Your task to perform on an android device: Set the phone to "Do not disturb". Image 0: 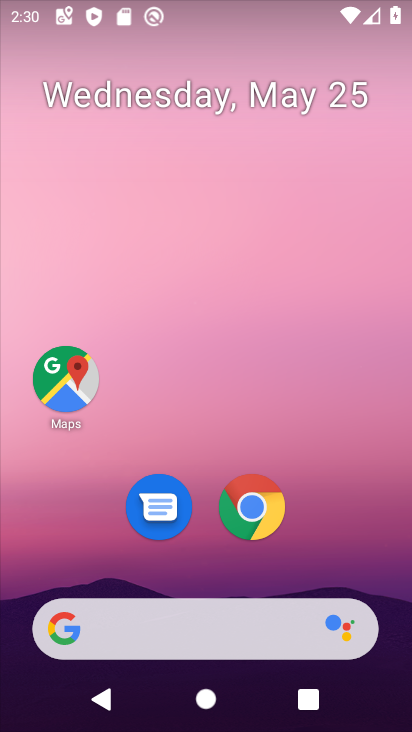
Step 0: drag from (196, 652) to (256, 135)
Your task to perform on an android device: Set the phone to "Do not disturb". Image 1: 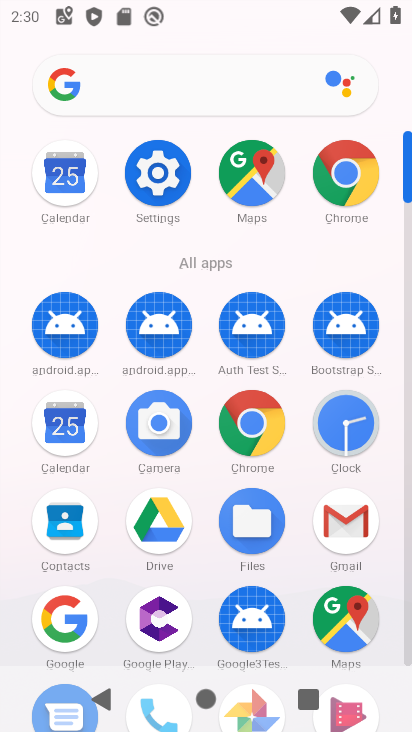
Step 1: drag from (172, 480) to (178, 247)
Your task to perform on an android device: Set the phone to "Do not disturb". Image 2: 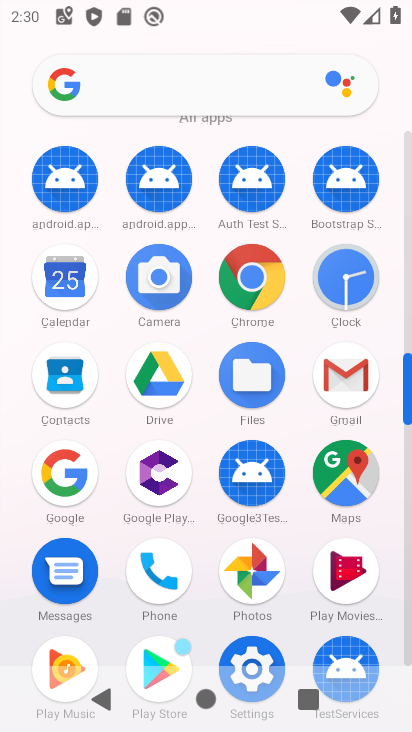
Step 2: drag from (214, 485) to (243, 239)
Your task to perform on an android device: Set the phone to "Do not disturb". Image 3: 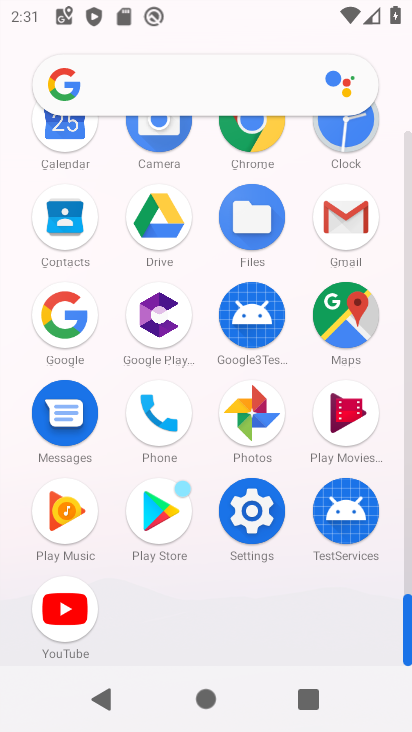
Step 3: drag from (289, 14) to (164, 436)
Your task to perform on an android device: Set the phone to "Do not disturb". Image 4: 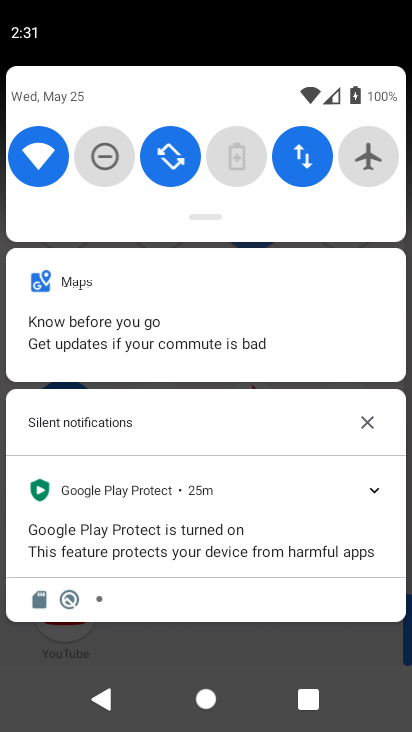
Step 4: click (104, 165)
Your task to perform on an android device: Set the phone to "Do not disturb". Image 5: 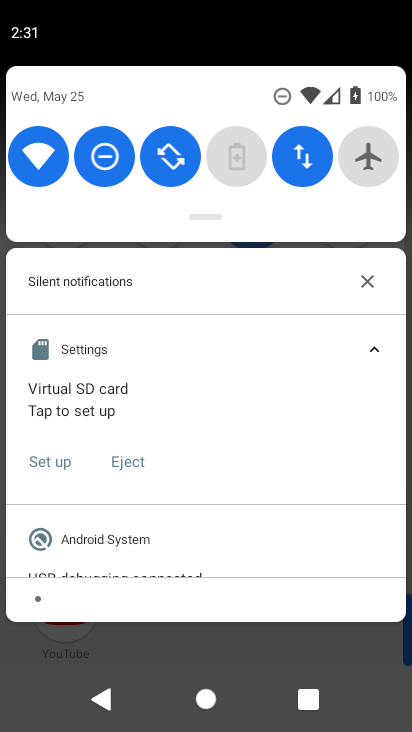
Step 5: task complete